Your task to perform on an android device: Open wifi settings Image 0: 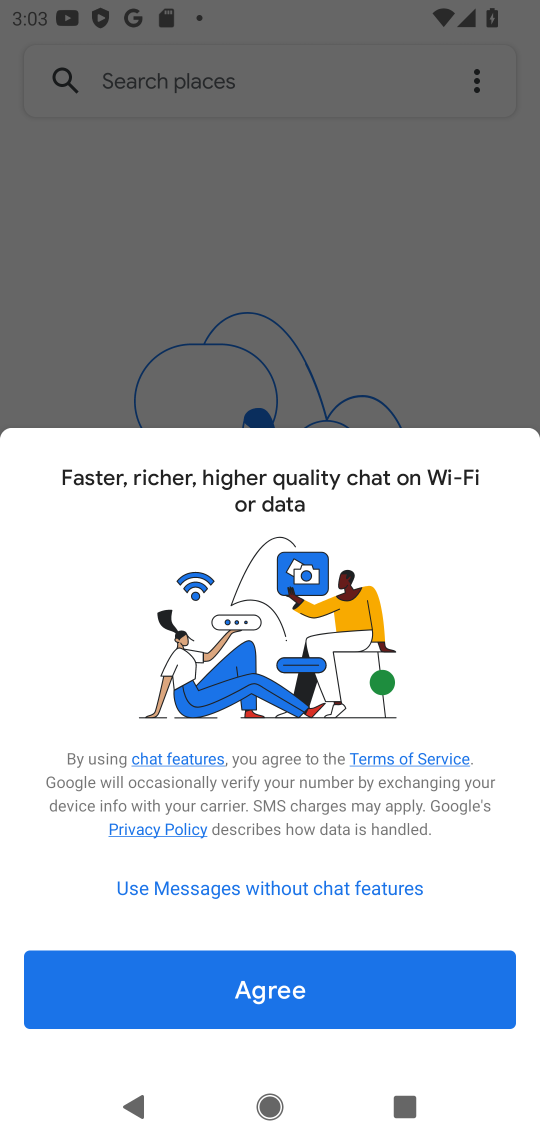
Step 0: press home button
Your task to perform on an android device: Open wifi settings Image 1: 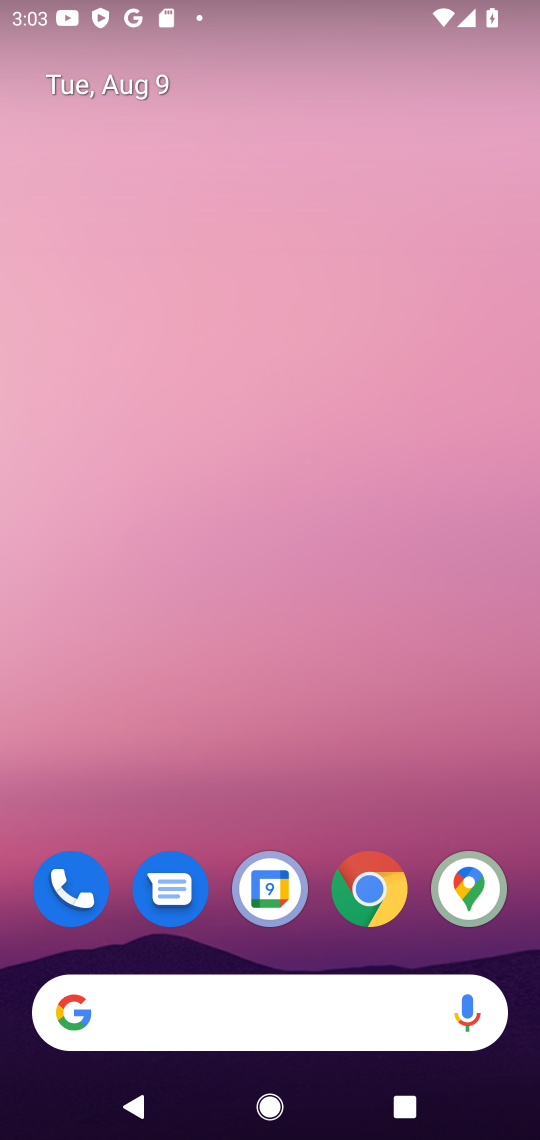
Step 1: drag from (296, 670) to (334, 0)
Your task to perform on an android device: Open wifi settings Image 2: 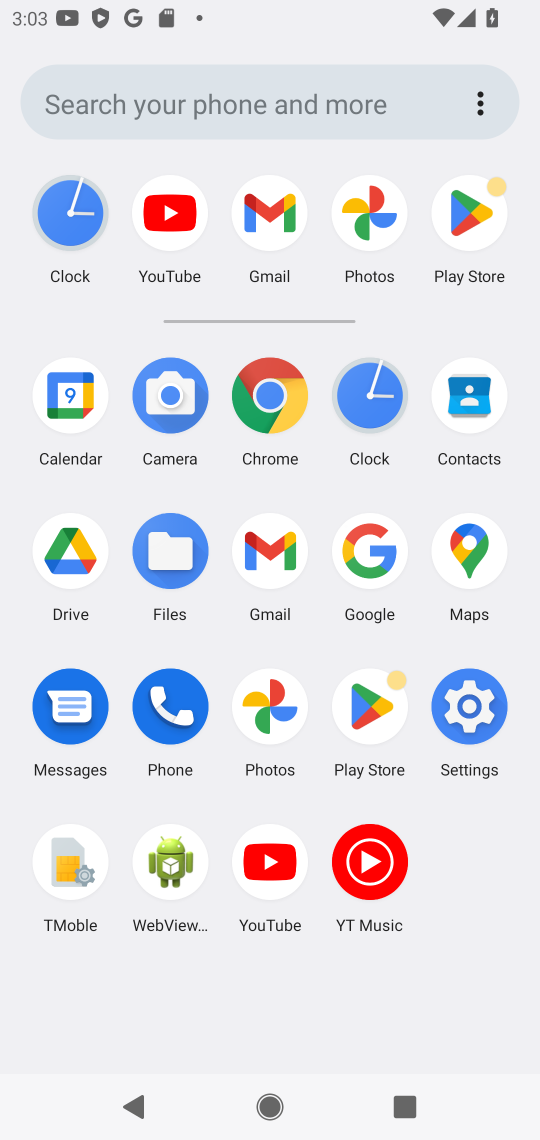
Step 2: click (469, 708)
Your task to perform on an android device: Open wifi settings Image 3: 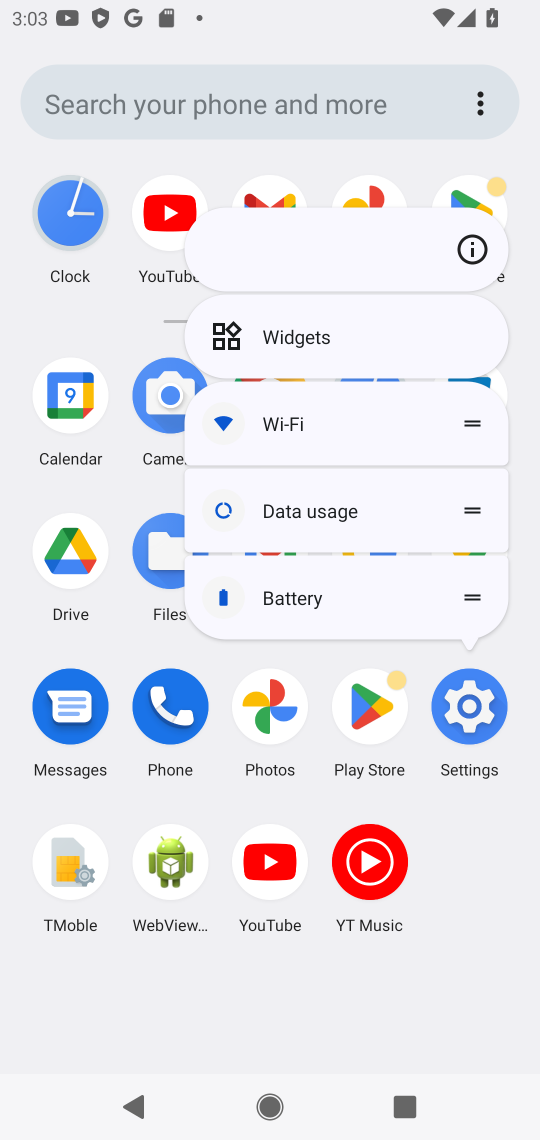
Step 3: click (469, 708)
Your task to perform on an android device: Open wifi settings Image 4: 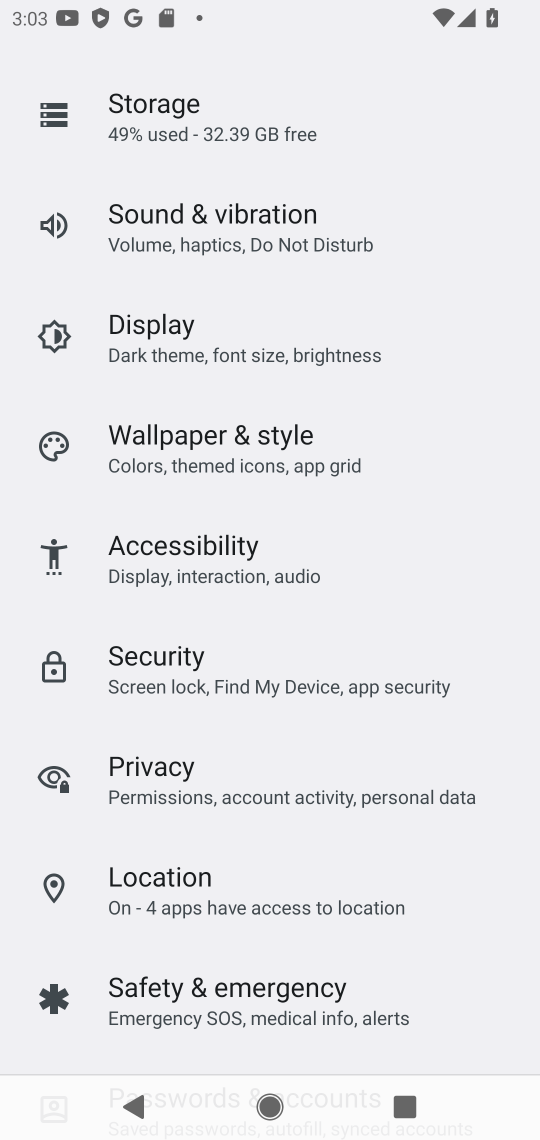
Step 4: drag from (303, 187) to (295, 938)
Your task to perform on an android device: Open wifi settings Image 5: 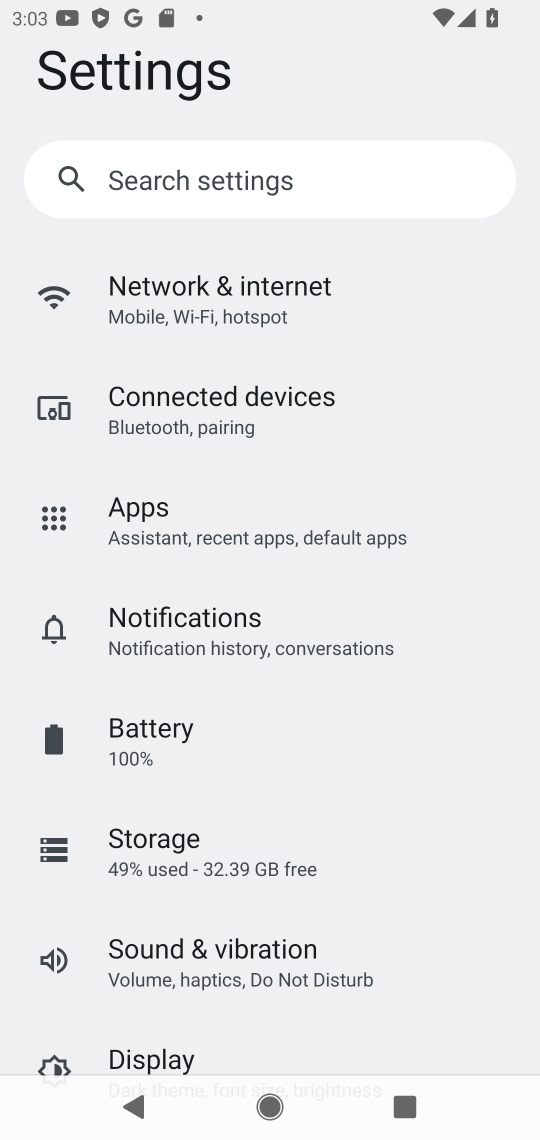
Step 5: click (215, 307)
Your task to perform on an android device: Open wifi settings Image 6: 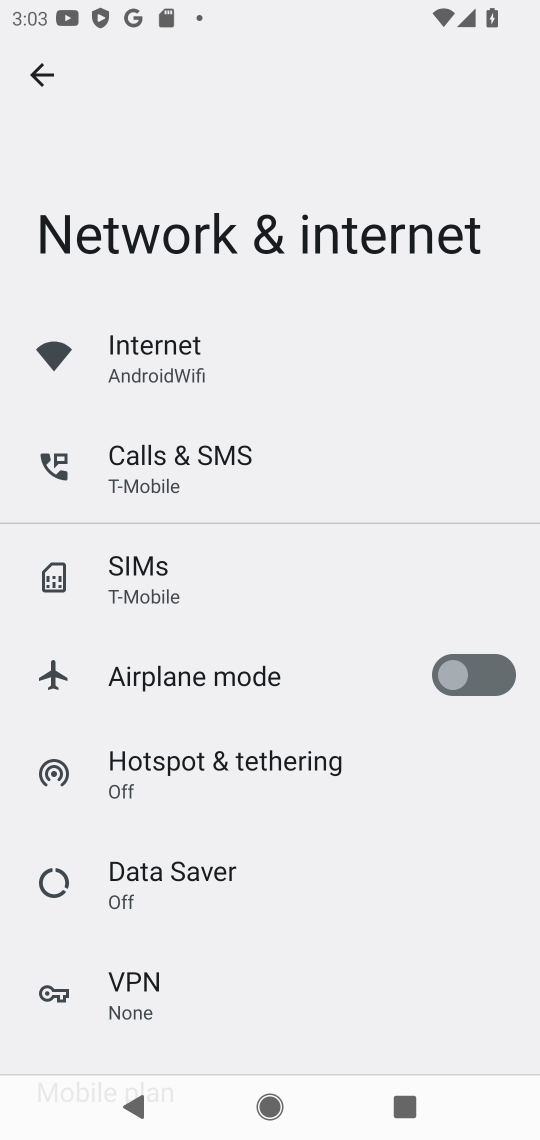
Step 6: click (198, 344)
Your task to perform on an android device: Open wifi settings Image 7: 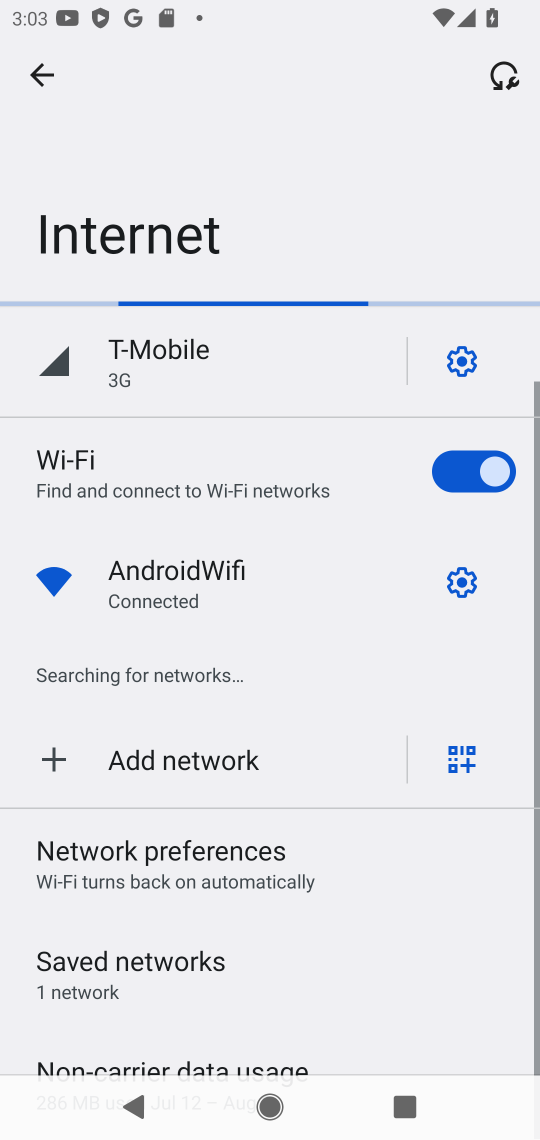
Step 7: task complete